Your task to perform on an android device: choose inbox layout in the gmail app Image 0: 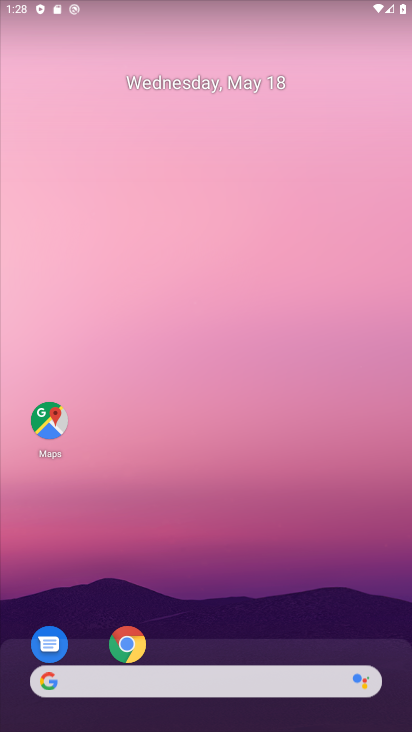
Step 0: drag from (183, 663) to (276, 302)
Your task to perform on an android device: choose inbox layout in the gmail app Image 1: 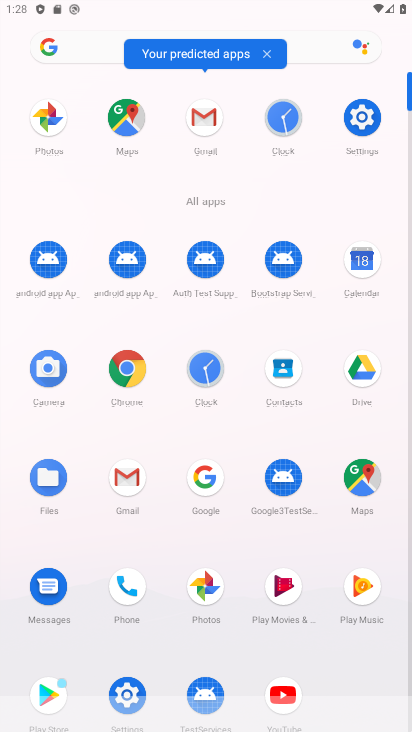
Step 1: click (136, 484)
Your task to perform on an android device: choose inbox layout in the gmail app Image 2: 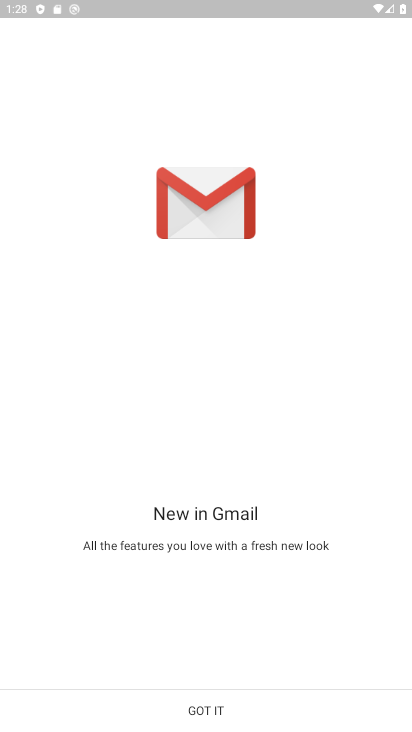
Step 2: click (214, 711)
Your task to perform on an android device: choose inbox layout in the gmail app Image 3: 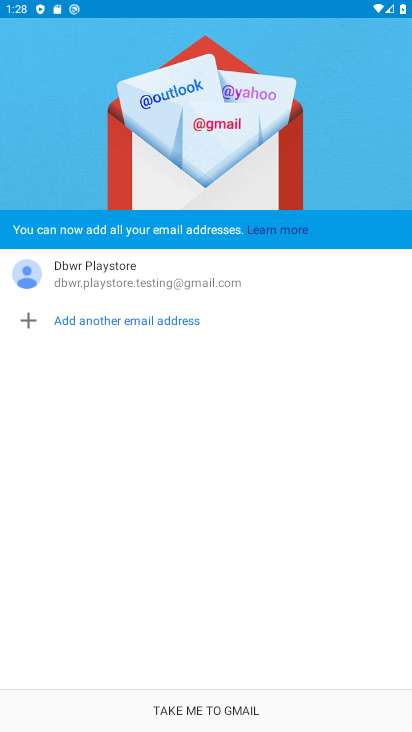
Step 3: click (246, 716)
Your task to perform on an android device: choose inbox layout in the gmail app Image 4: 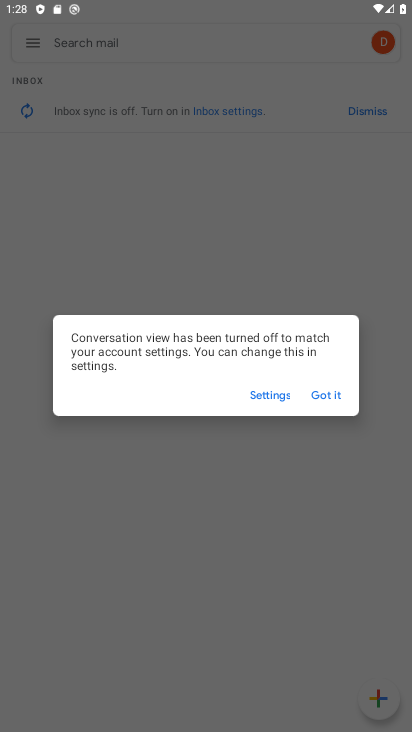
Step 4: click (340, 391)
Your task to perform on an android device: choose inbox layout in the gmail app Image 5: 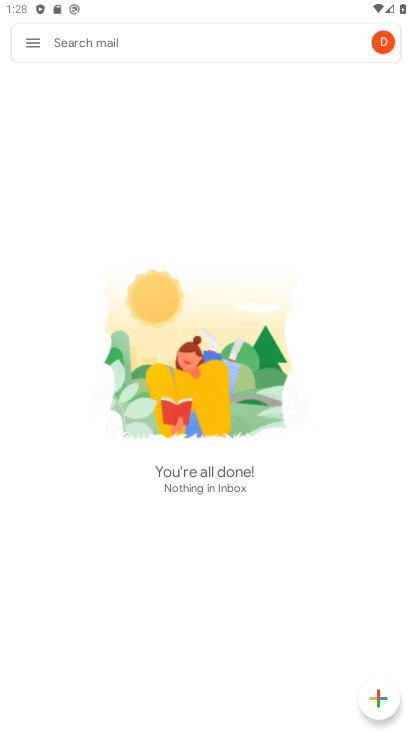
Step 5: click (32, 40)
Your task to perform on an android device: choose inbox layout in the gmail app Image 6: 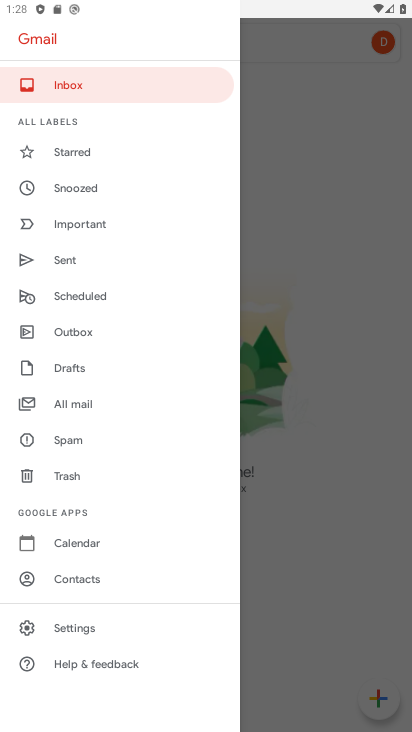
Step 6: drag from (98, 555) to (180, 304)
Your task to perform on an android device: choose inbox layout in the gmail app Image 7: 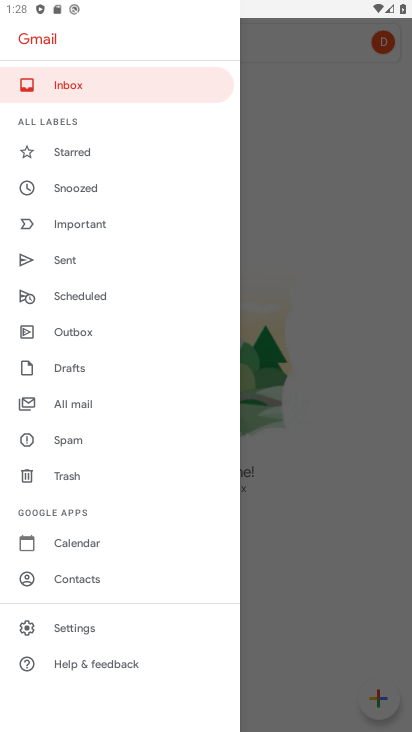
Step 7: click (130, 629)
Your task to perform on an android device: choose inbox layout in the gmail app Image 8: 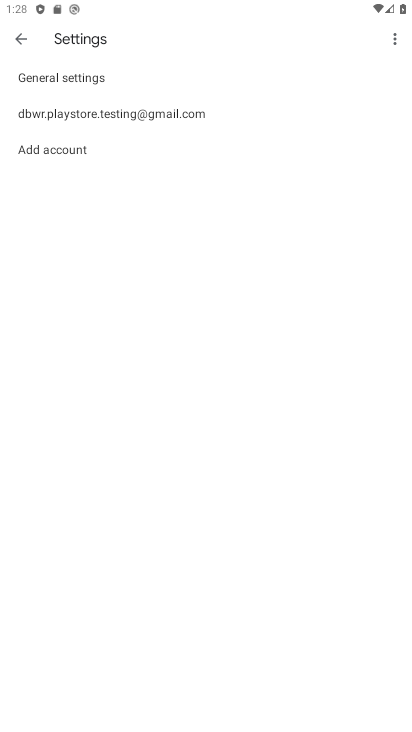
Step 8: click (154, 118)
Your task to perform on an android device: choose inbox layout in the gmail app Image 9: 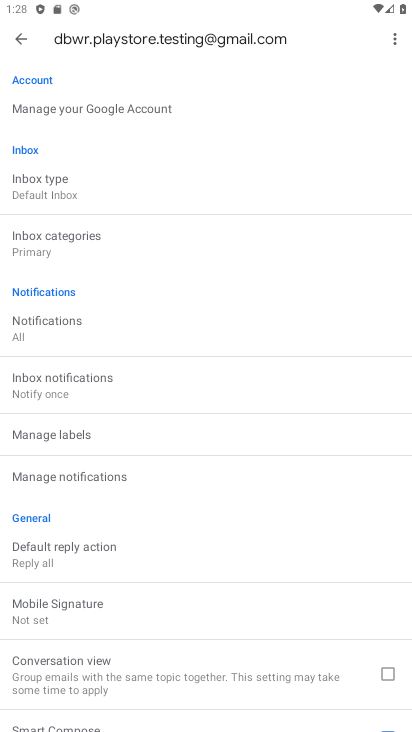
Step 9: click (135, 192)
Your task to perform on an android device: choose inbox layout in the gmail app Image 10: 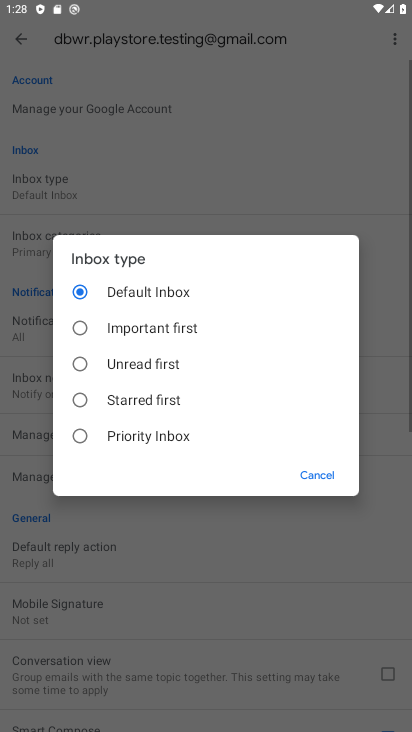
Step 10: click (136, 431)
Your task to perform on an android device: choose inbox layout in the gmail app Image 11: 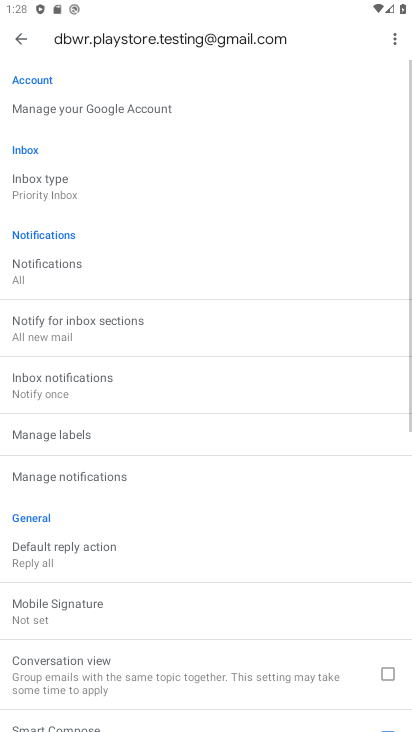
Step 11: task complete